Your task to perform on an android device: open app "Facebook" (install if not already installed) and enter user name: "resultants@gmail.com" and password: "earned" Image 0: 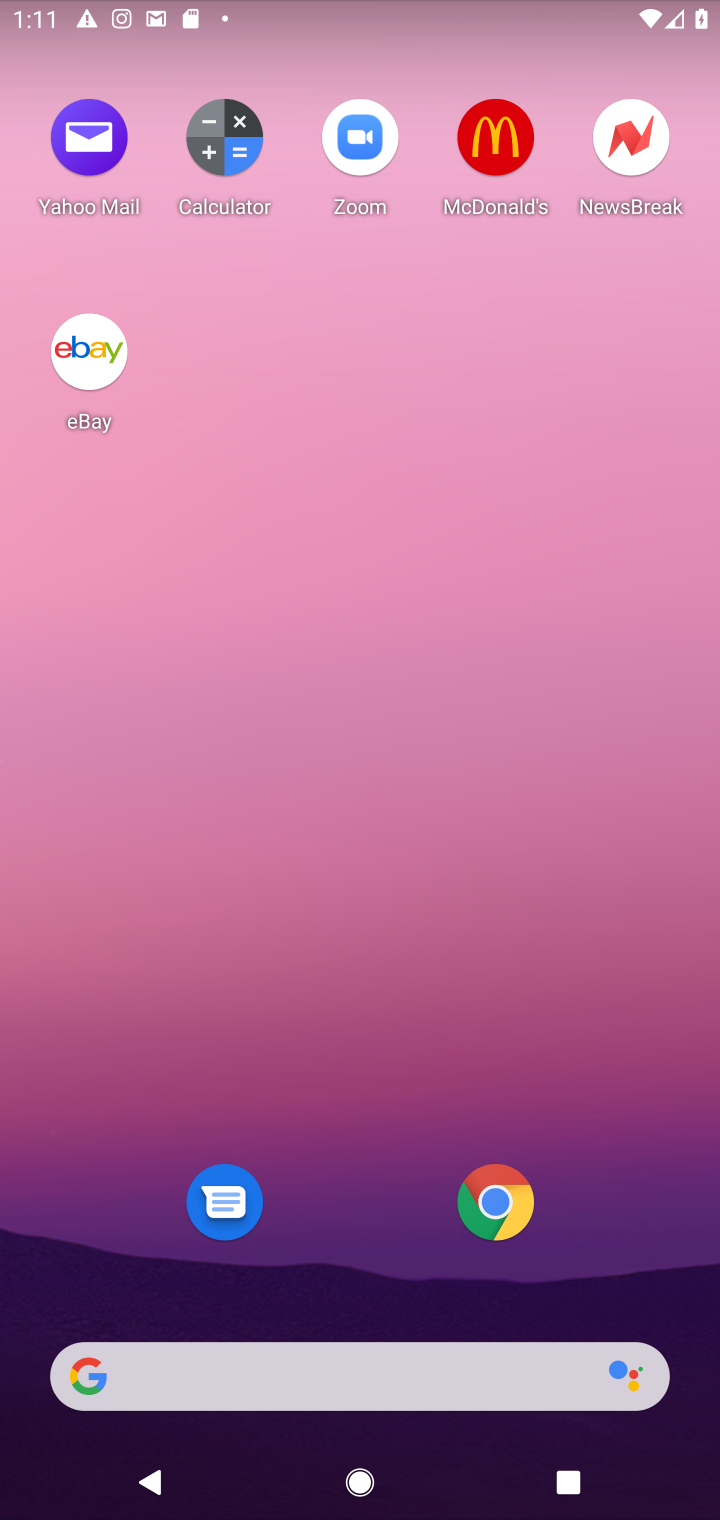
Step 0: drag from (323, 1330) to (311, 165)
Your task to perform on an android device: open app "Facebook" (install if not already installed) and enter user name: "resultants@gmail.com" and password: "earned" Image 1: 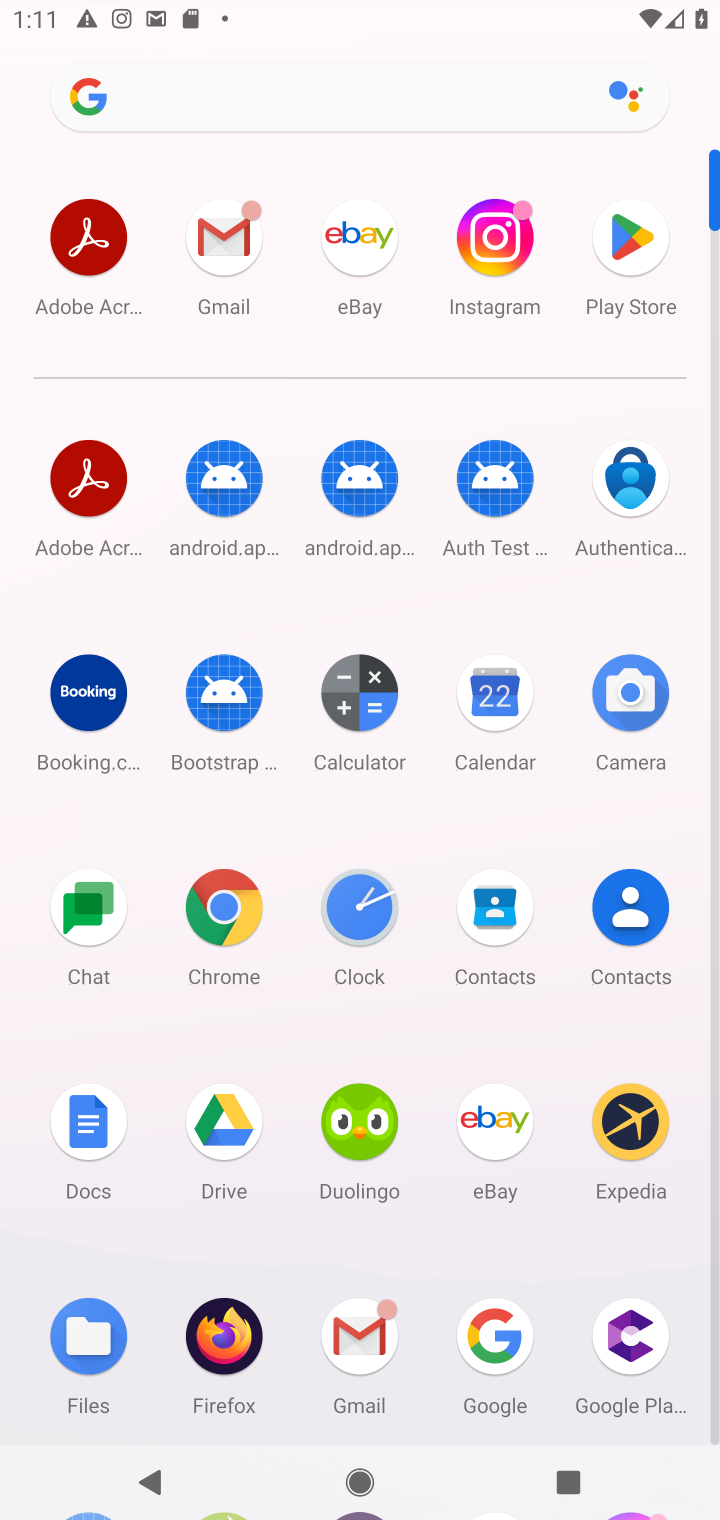
Step 1: drag from (403, 1277) to (374, 486)
Your task to perform on an android device: open app "Facebook" (install if not already installed) and enter user name: "resultants@gmail.com" and password: "earned" Image 2: 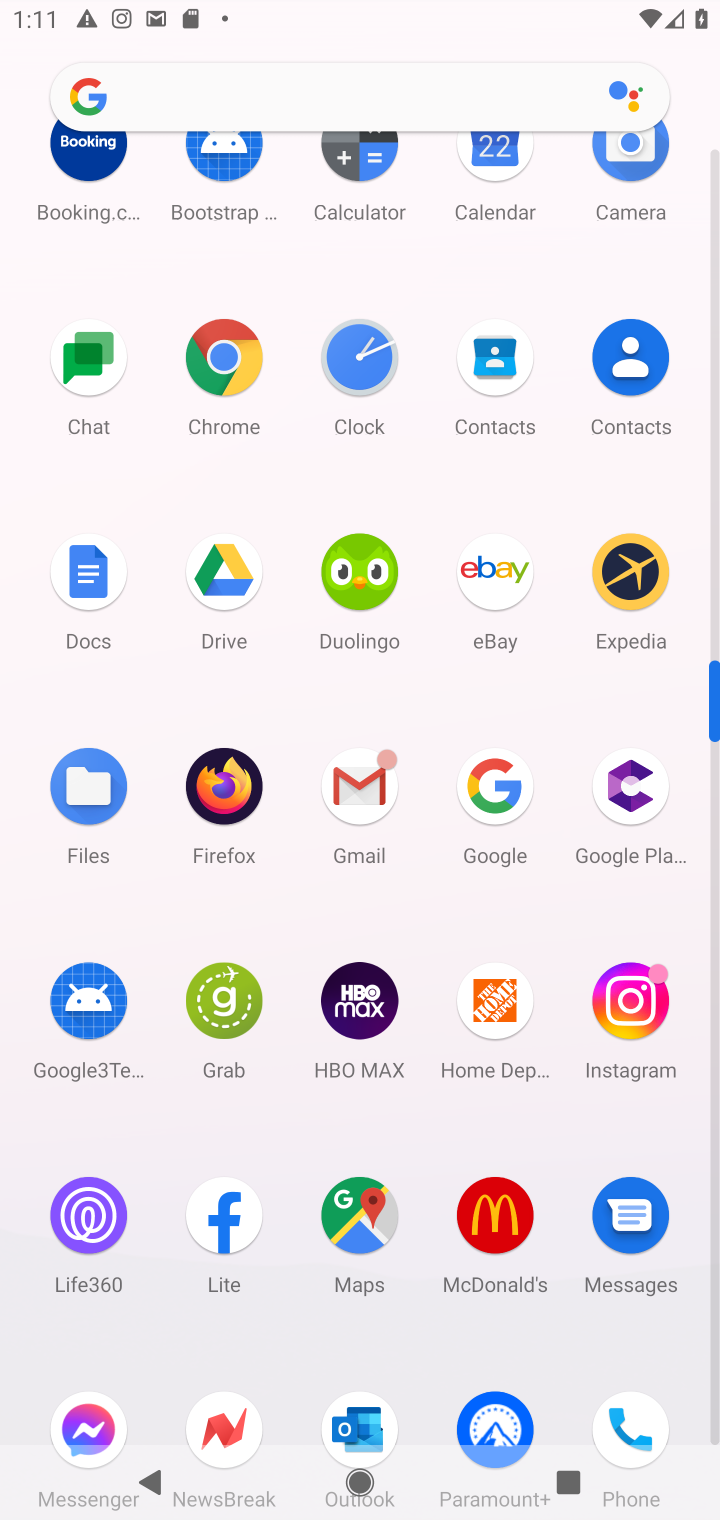
Step 2: drag from (445, 300) to (420, 1214)
Your task to perform on an android device: open app "Facebook" (install if not already installed) and enter user name: "resultants@gmail.com" and password: "earned" Image 3: 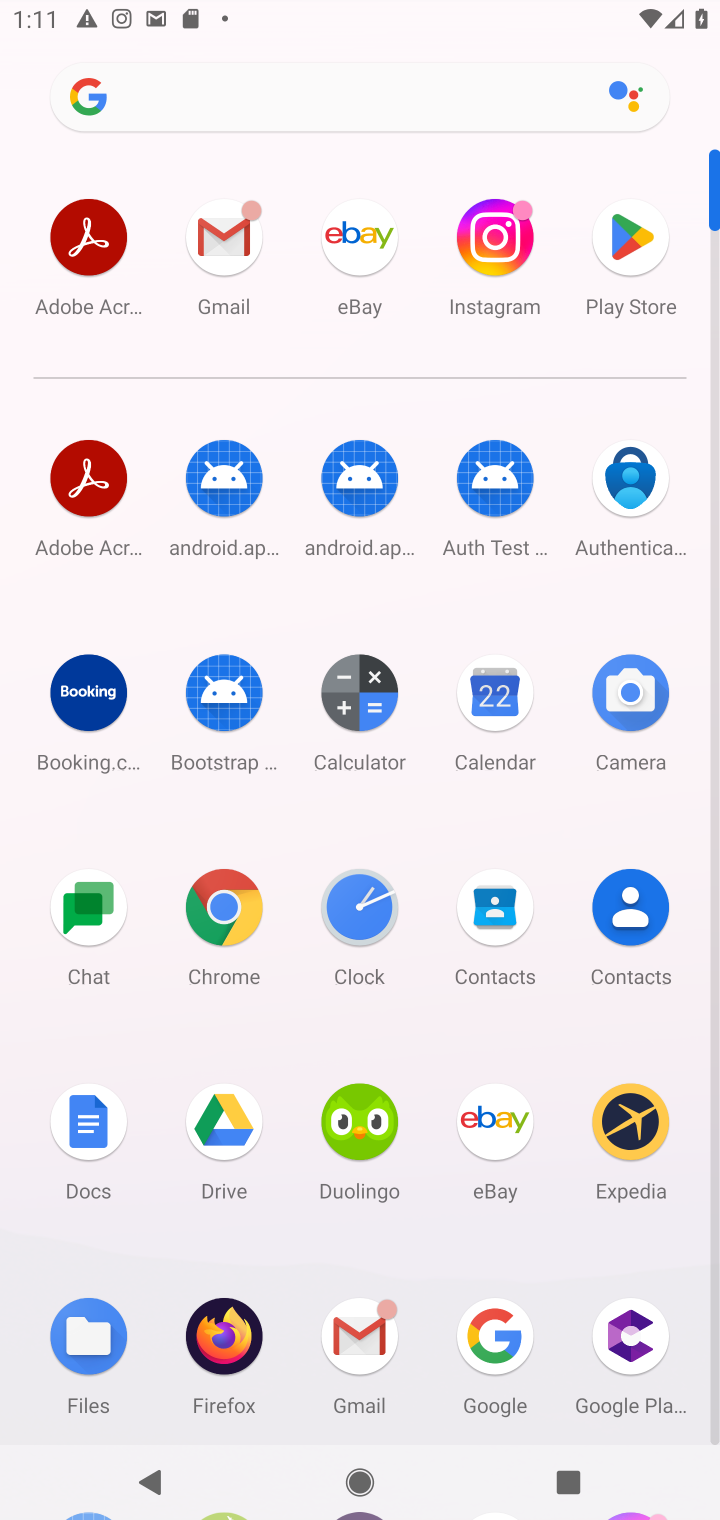
Step 3: click (625, 239)
Your task to perform on an android device: open app "Facebook" (install if not already installed) and enter user name: "resultants@gmail.com" and password: "earned" Image 4: 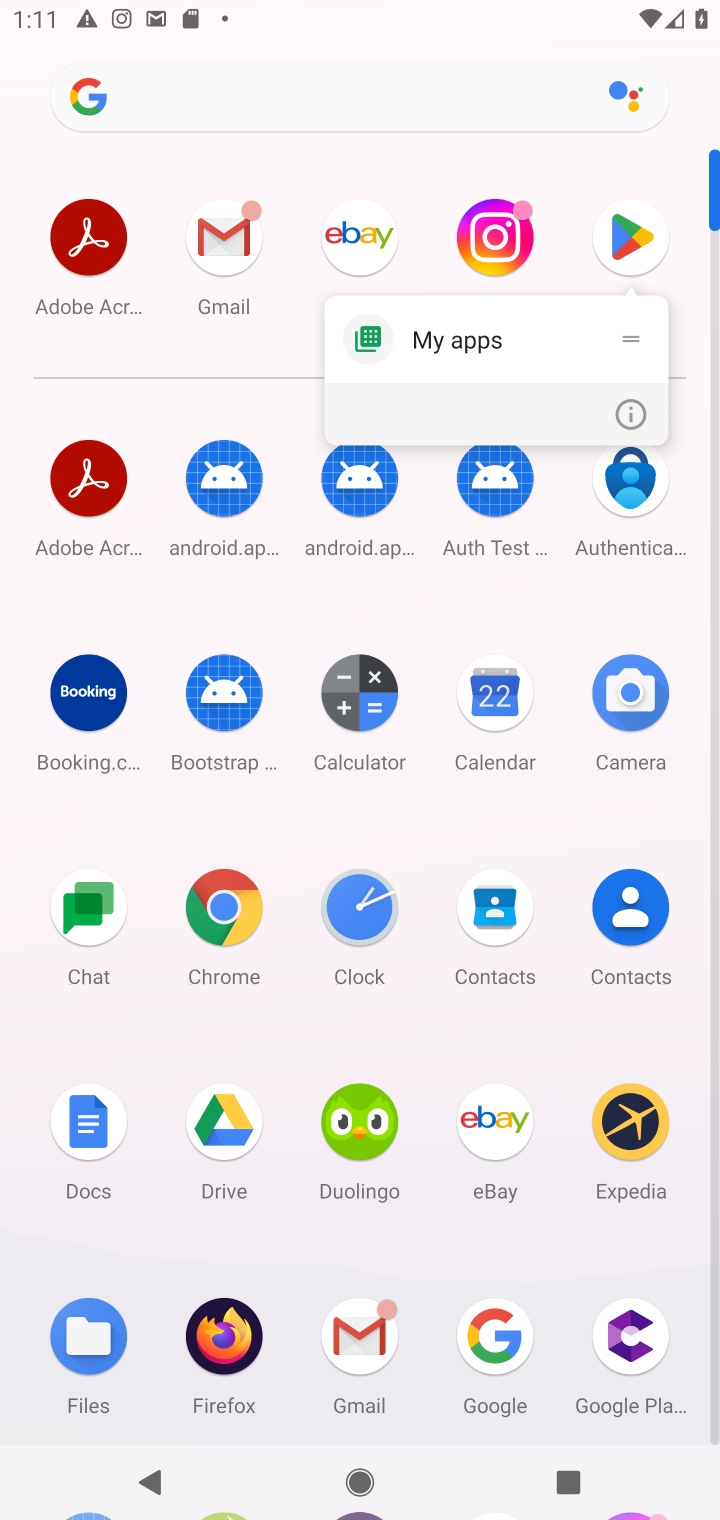
Step 4: click (634, 232)
Your task to perform on an android device: open app "Facebook" (install if not already installed) and enter user name: "resultants@gmail.com" and password: "earned" Image 5: 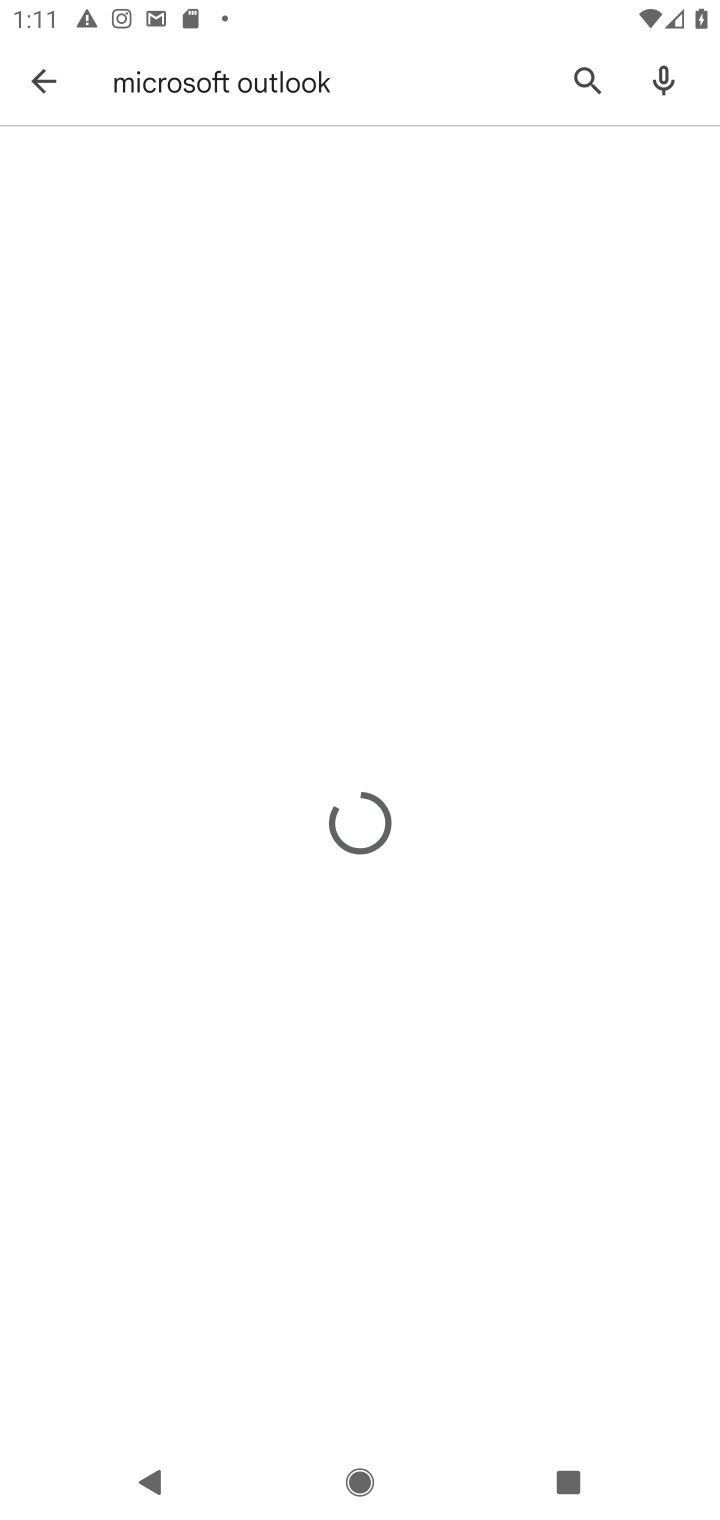
Step 5: click (582, 71)
Your task to perform on an android device: open app "Facebook" (install if not already installed) and enter user name: "resultants@gmail.com" and password: "earned" Image 6: 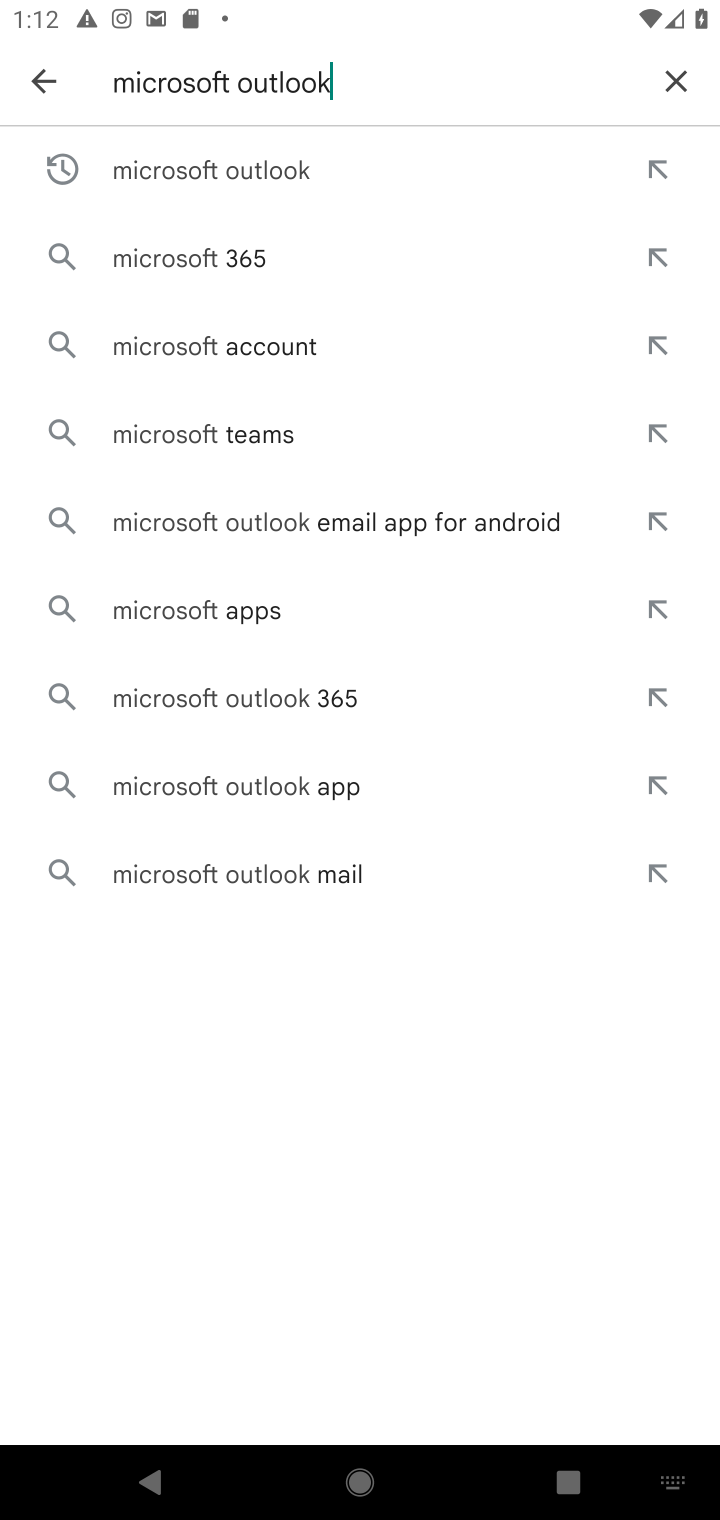
Step 6: click (671, 77)
Your task to perform on an android device: open app "Facebook" (install if not already installed) and enter user name: "resultants@gmail.com" and password: "earned" Image 7: 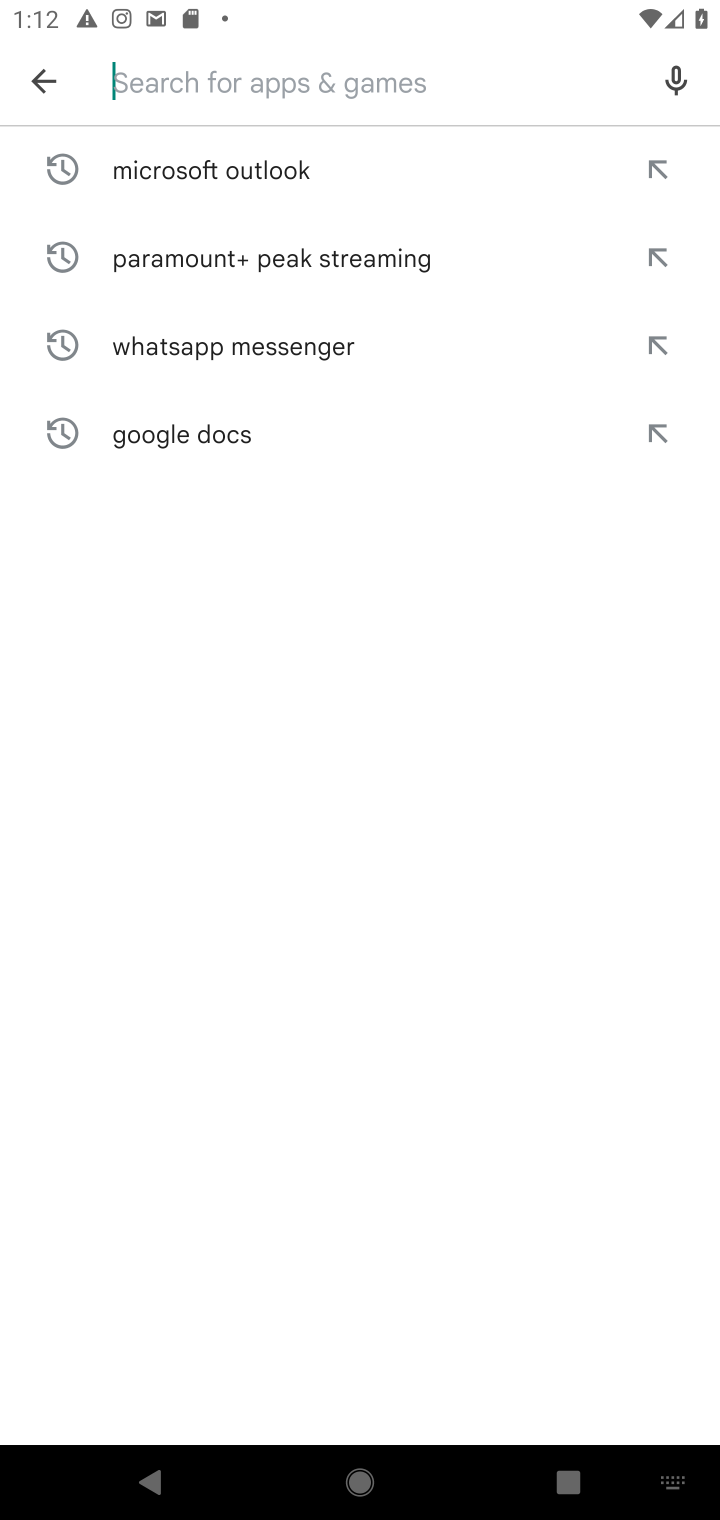
Step 7: type "Facebook "
Your task to perform on an android device: open app "Facebook" (install if not already installed) and enter user name: "resultants@gmail.com" and password: "earned" Image 8: 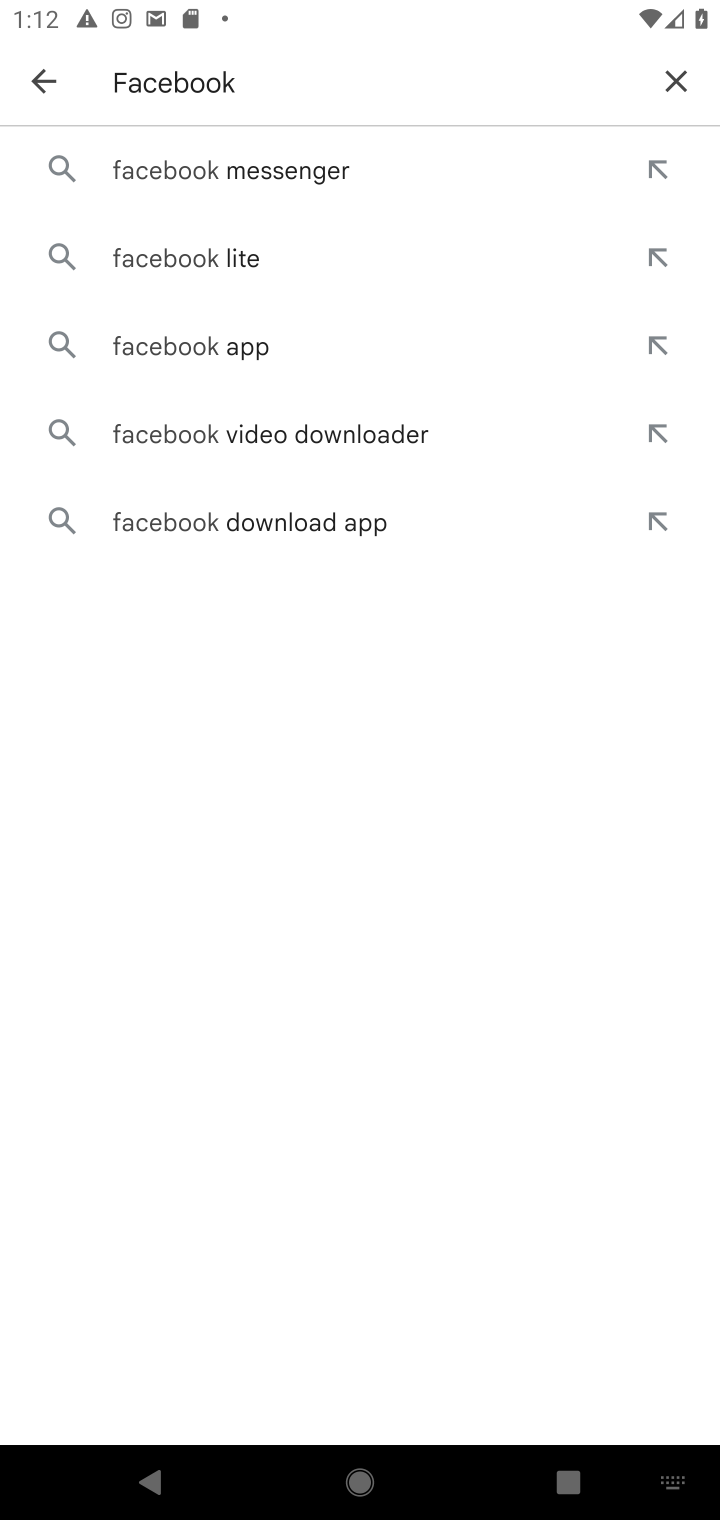
Step 8: click (171, 348)
Your task to perform on an android device: open app "Facebook" (install if not already installed) and enter user name: "resultants@gmail.com" and password: "earned" Image 9: 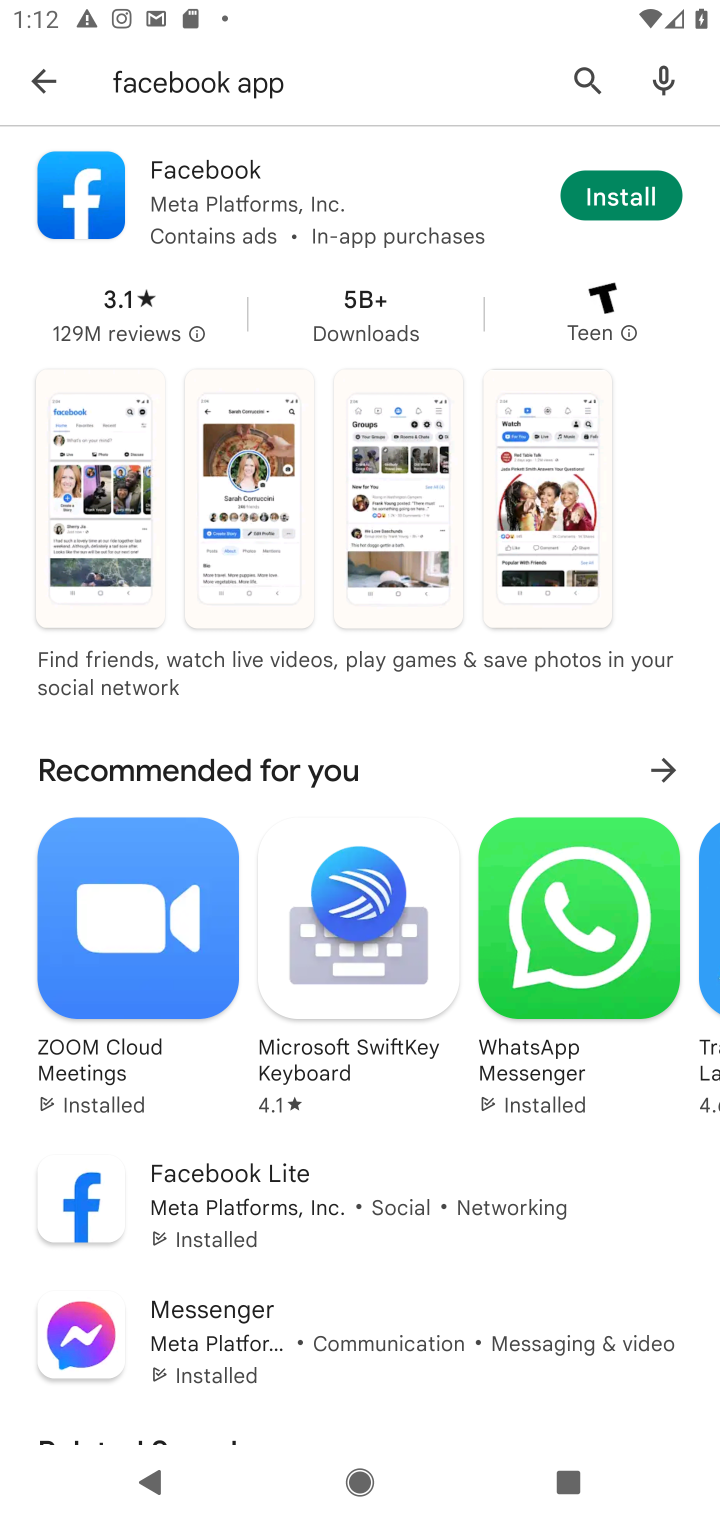
Step 9: click (641, 182)
Your task to perform on an android device: open app "Facebook" (install if not already installed) and enter user name: "resultants@gmail.com" and password: "earned" Image 10: 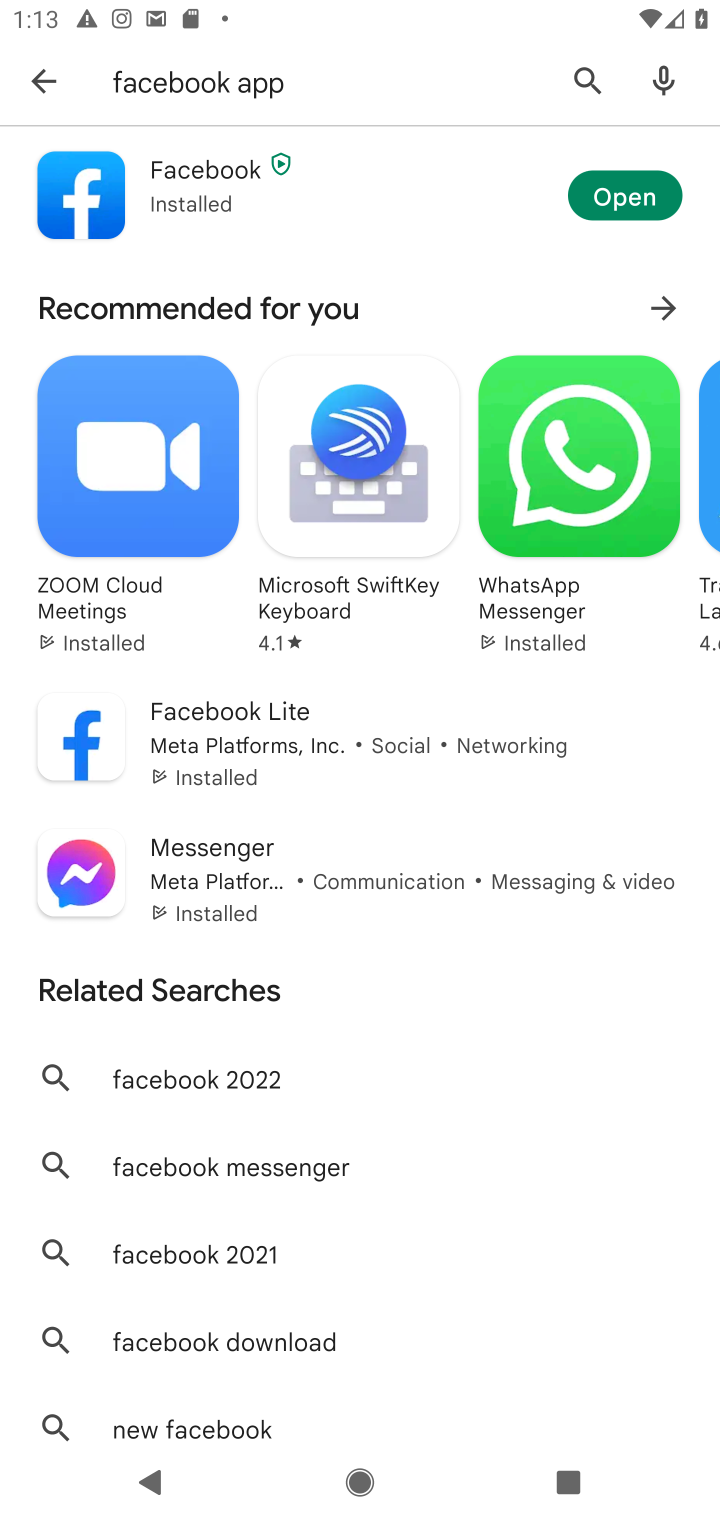
Step 10: click (614, 189)
Your task to perform on an android device: open app "Facebook" (install if not already installed) and enter user name: "resultants@gmail.com" and password: "earned" Image 11: 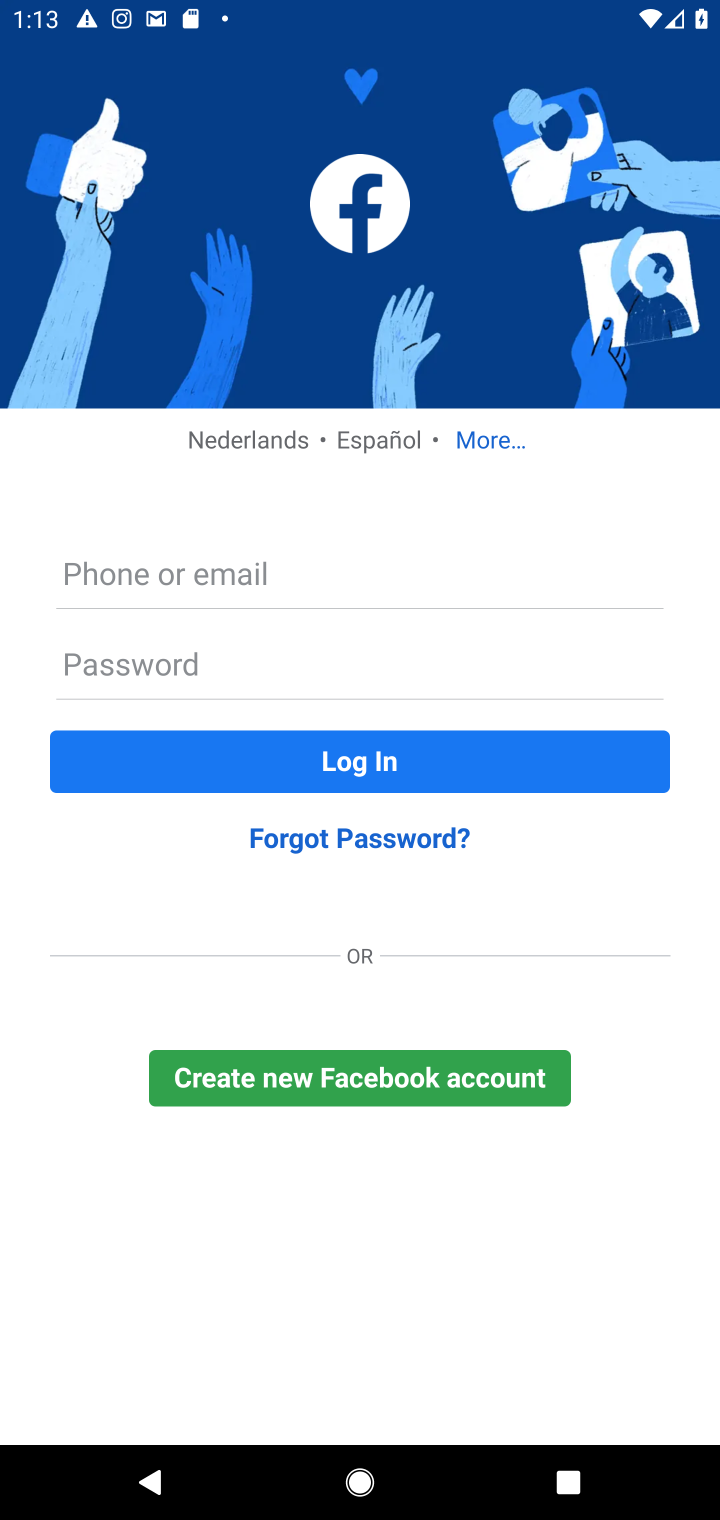
Step 11: click (264, 577)
Your task to perform on an android device: open app "Facebook" (install if not already installed) and enter user name: "resultants@gmail.com" and password: "earned" Image 12: 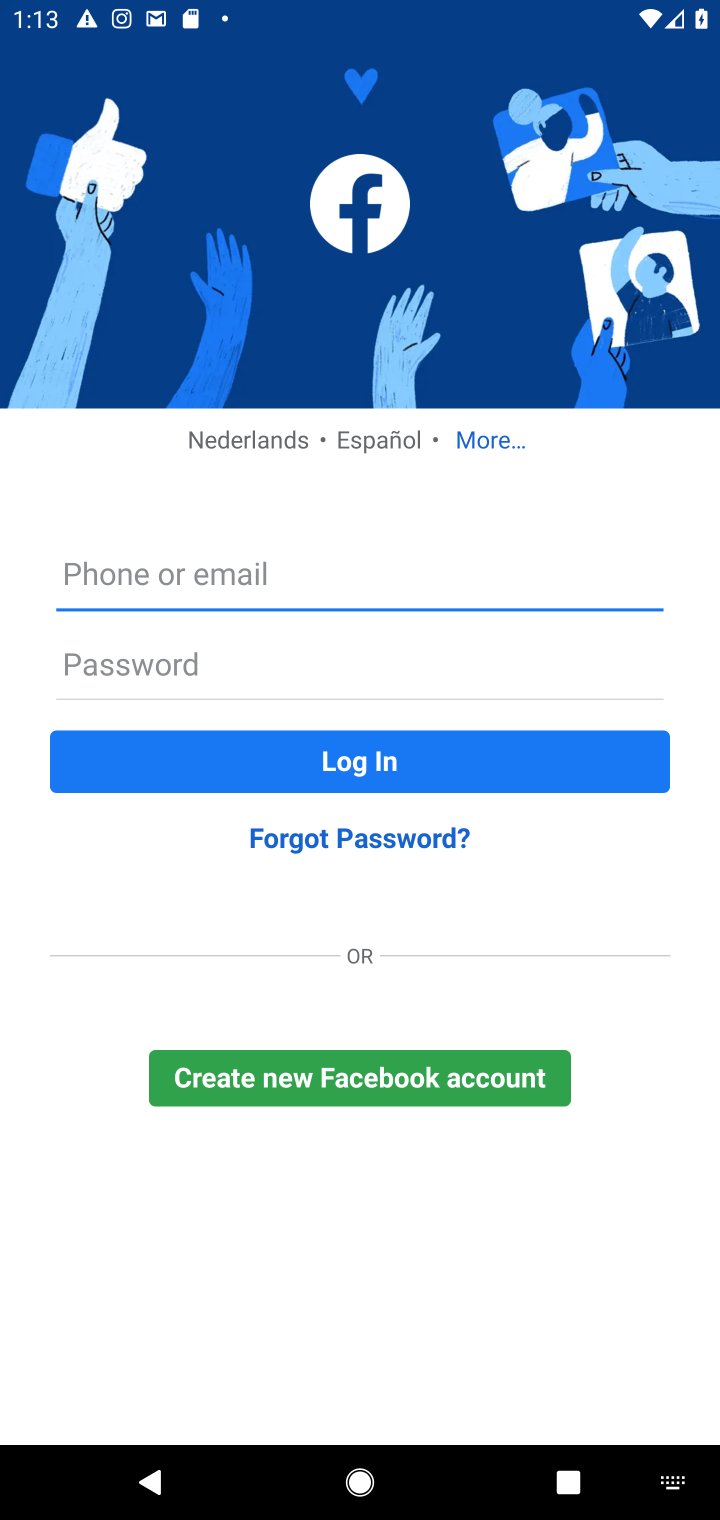
Step 12: type "resultants@gmail.com"
Your task to perform on an android device: open app "Facebook" (install if not already installed) and enter user name: "resultants@gmail.com" and password: "earned" Image 13: 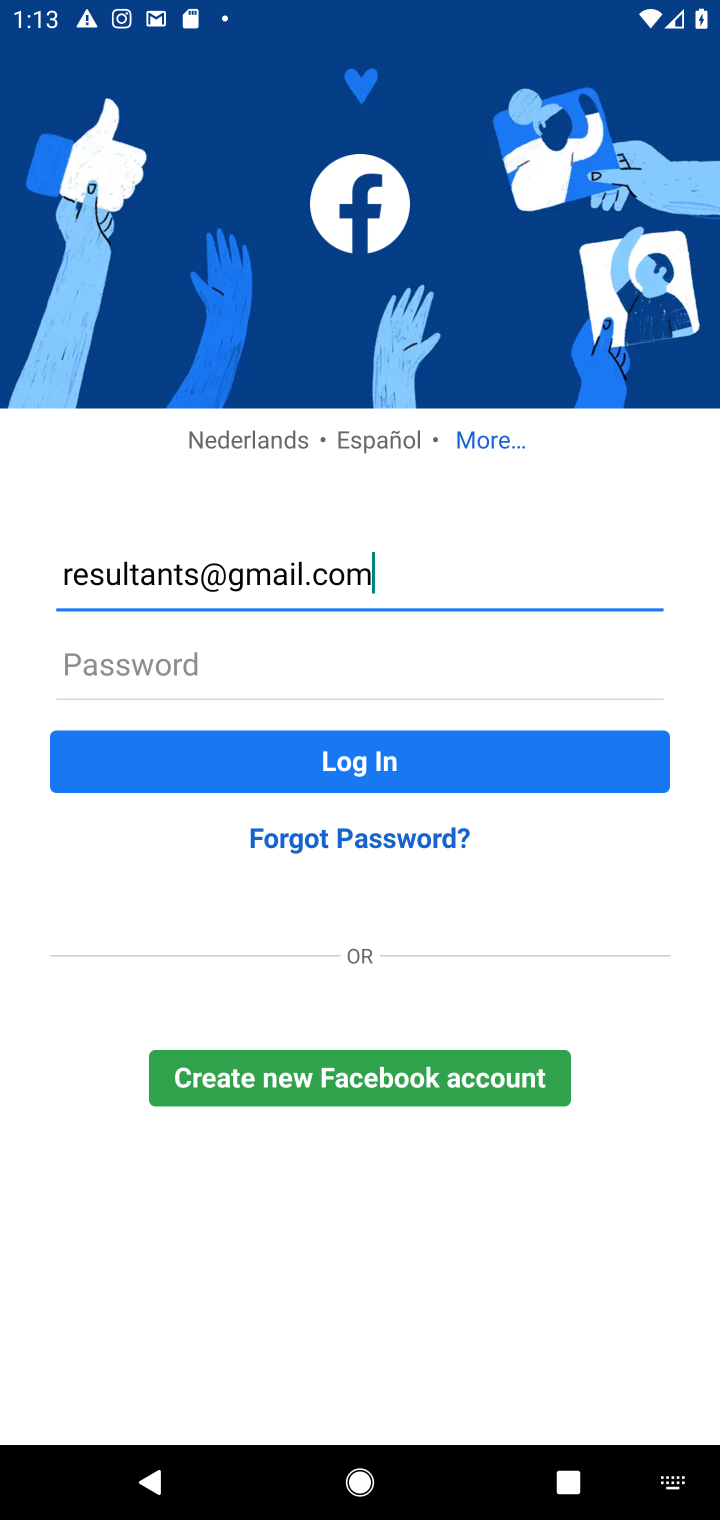
Step 13: type ""
Your task to perform on an android device: open app "Facebook" (install if not already installed) and enter user name: "resultants@gmail.com" and password: "earned" Image 14: 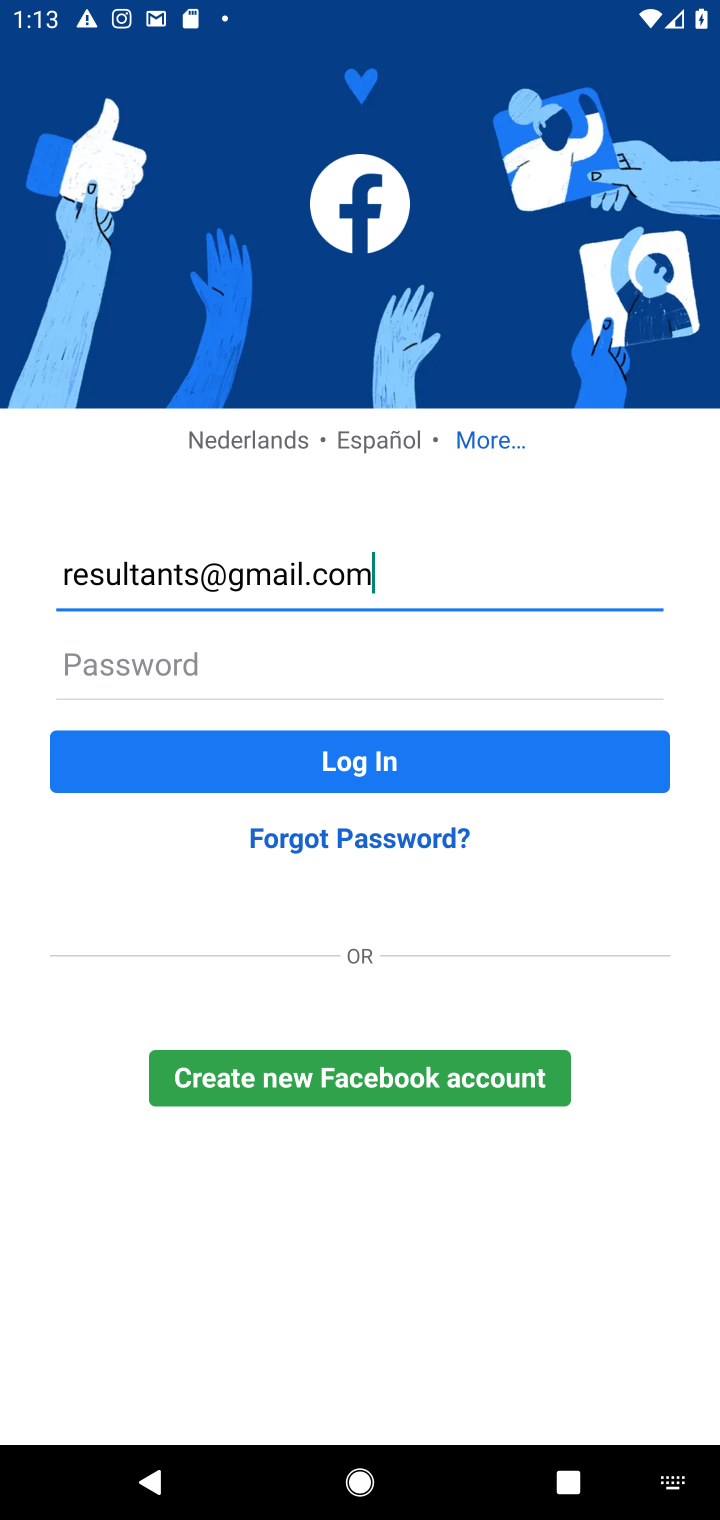
Step 14: click (134, 658)
Your task to perform on an android device: open app "Facebook" (install if not already installed) and enter user name: "resultants@gmail.com" and password: "earned" Image 15: 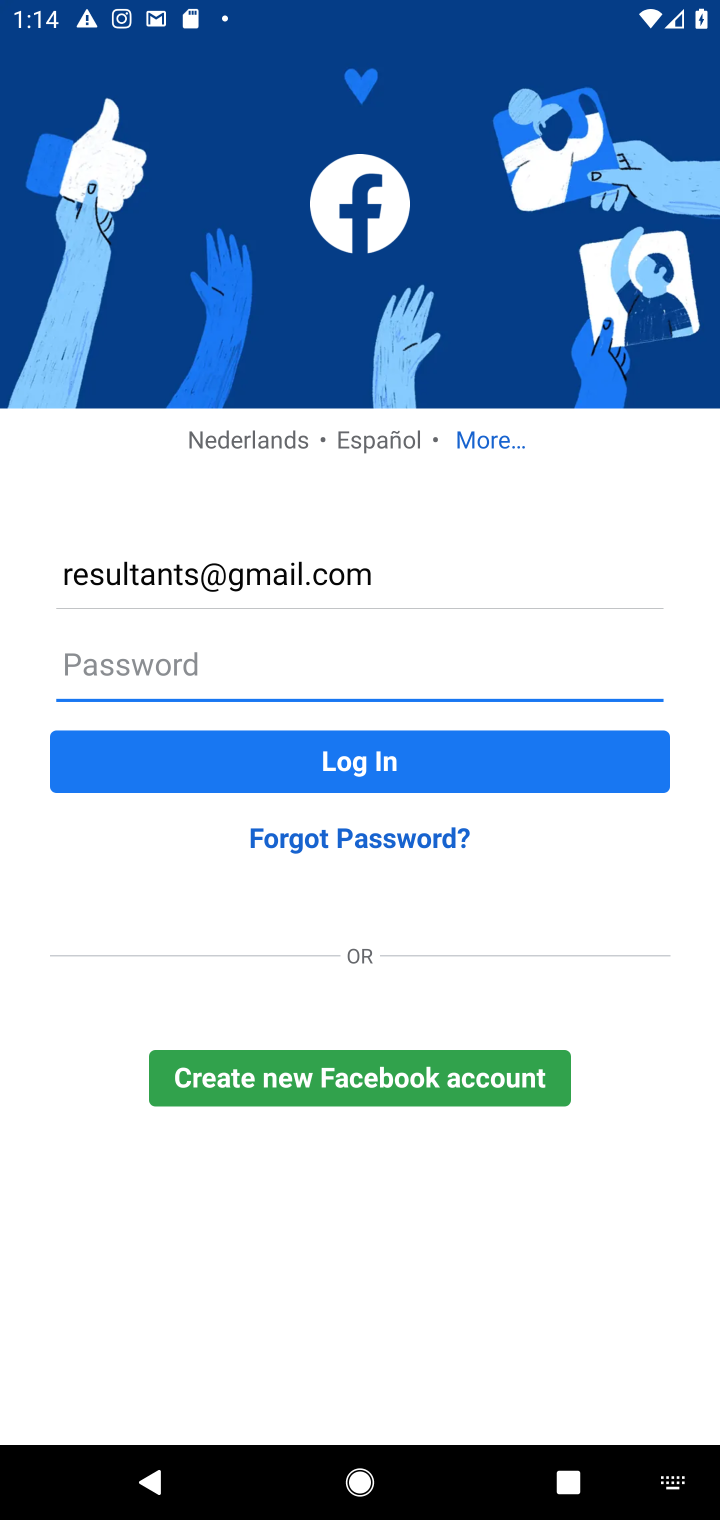
Step 15: type "earned"
Your task to perform on an android device: open app "Facebook" (install if not already installed) and enter user name: "resultants@gmail.com" and password: "earned" Image 16: 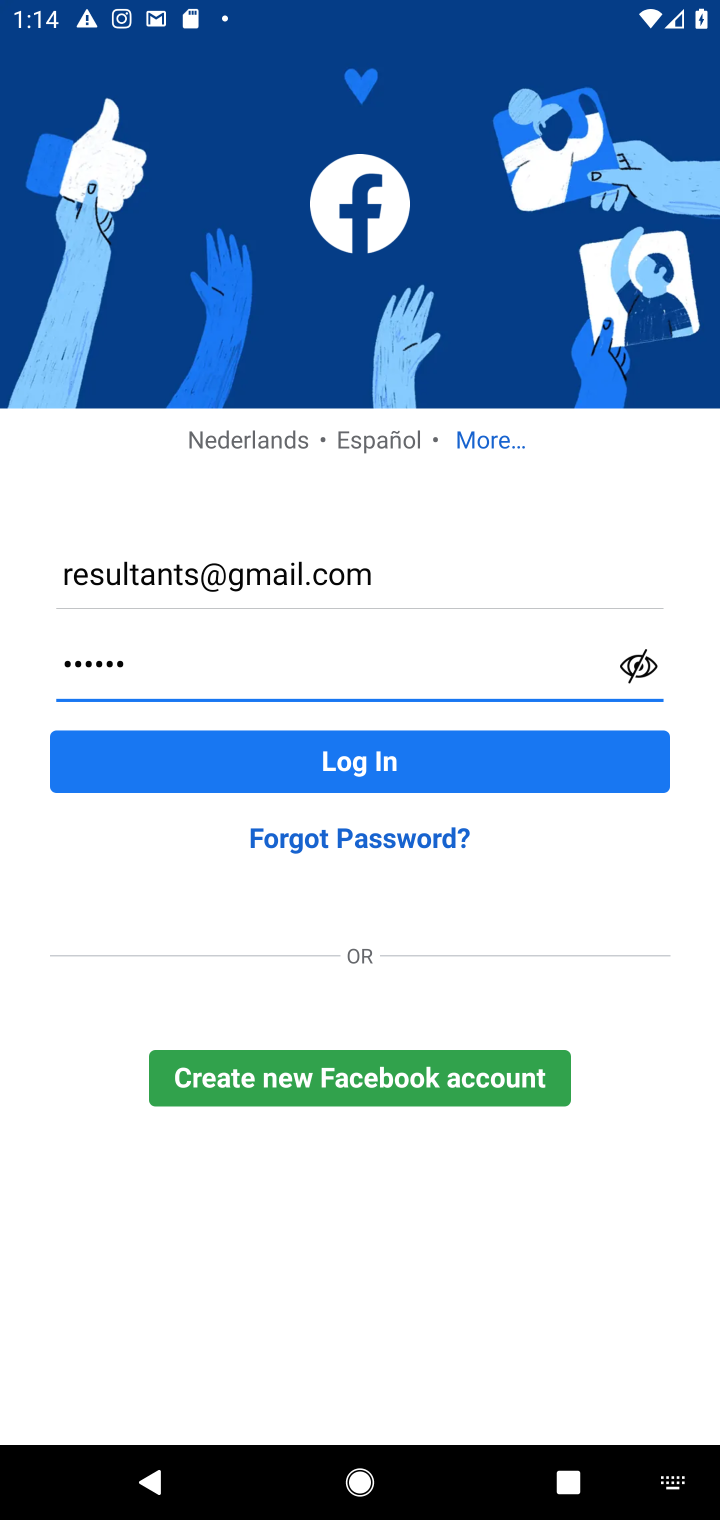
Step 16: task complete